Your task to perform on an android device: Go to settings Image 0: 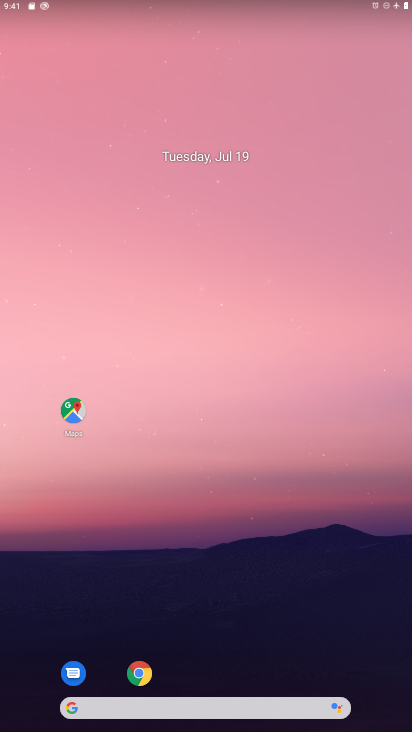
Step 0: drag from (371, 665) to (314, 260)
Your task to perform on an android device: Go to settings Image 1: 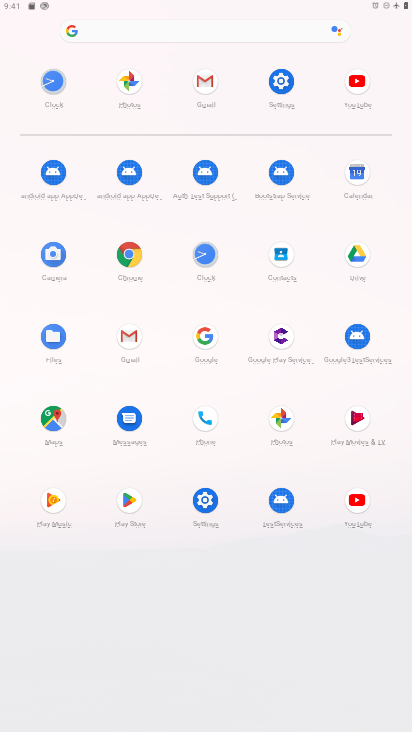
Step 1: click (207, 502)
Your task to perform on an android device: Go to settings Image 2: 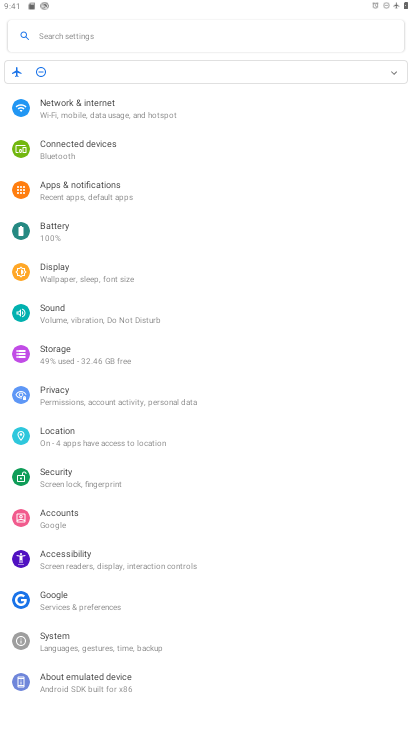
Step 2: task complete